Your task to perform on an android device: Check out the new nike air max 2020. Image 0: 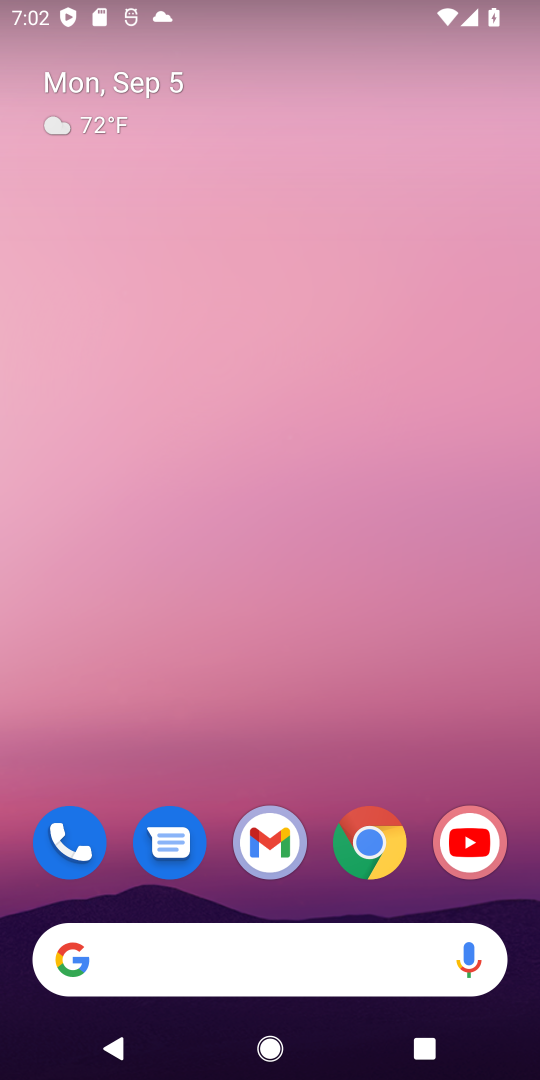
Step 0: click (372, 847)
Your task to perform on an android device: Check out the new nike air max 2020. Image 1: 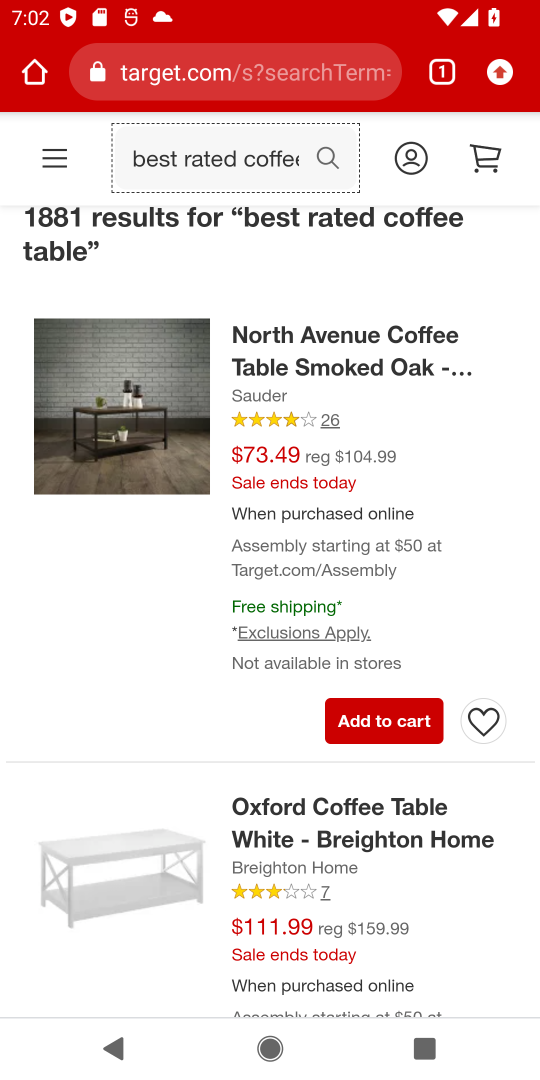
Step 1: click (304, 81)
Your task to perform on an android device: Check out the new nike air max 2020. Image 2: 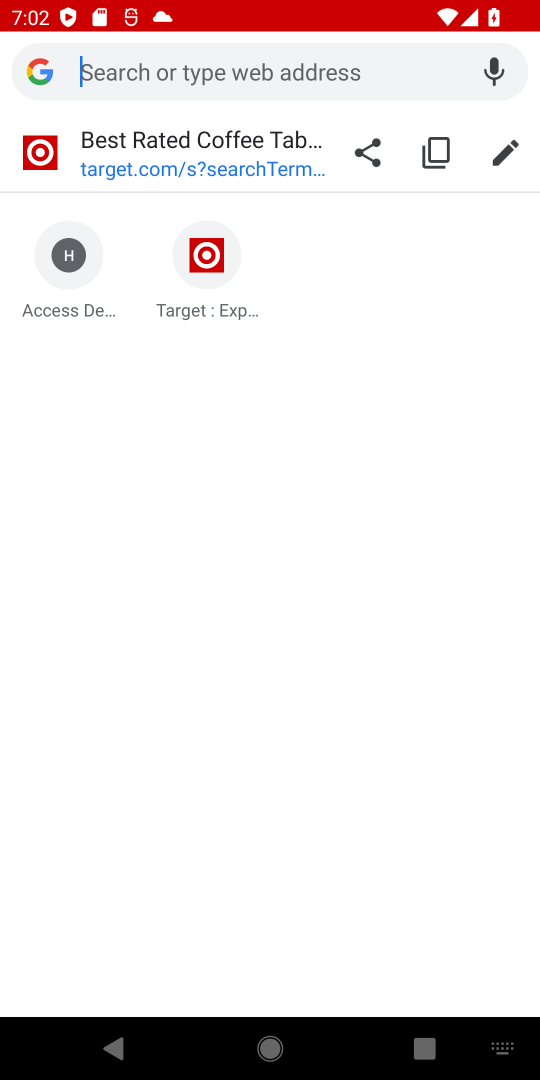
Step 2: type ""
Your task to perform on an android device: Check out the new nike air max 2020. Image 3: 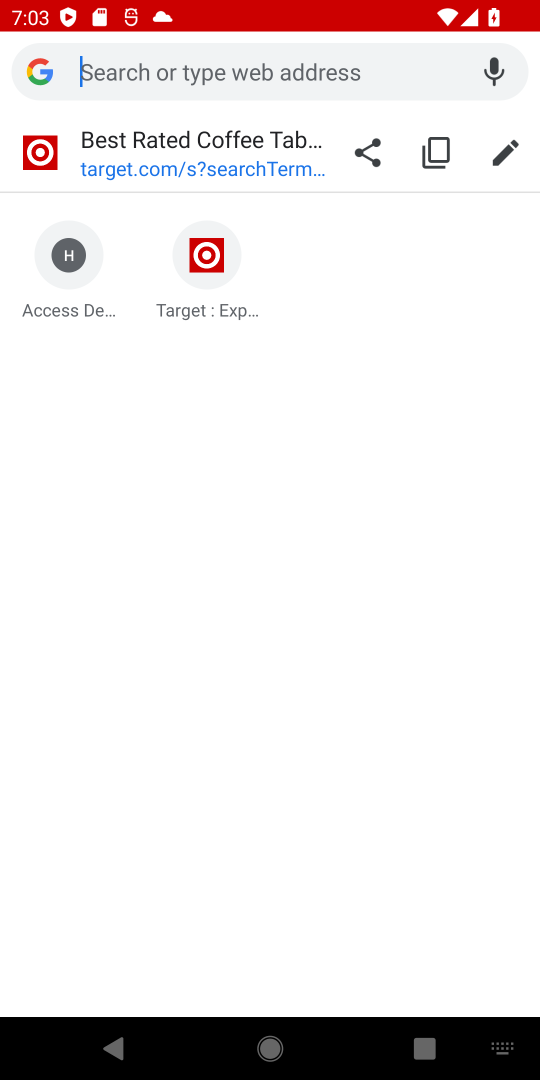
Step 3: type "new nike air max 2020"
Your task to perform on an android device: Check out the new nike air max 2020. Image 4: 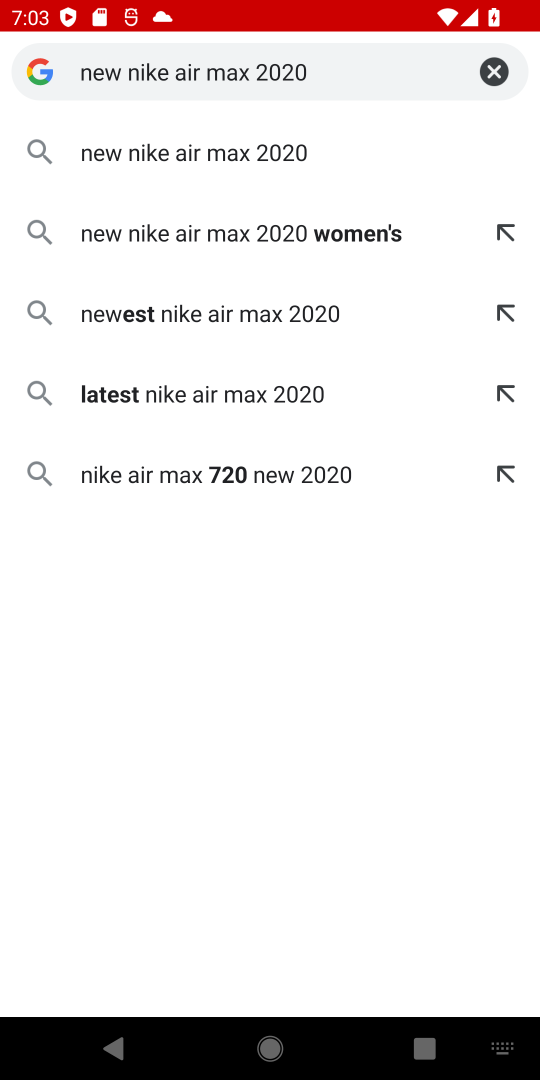
Step 4: click (189, 160)
Your task to perform on an android device: Check out the new nike air max 2020. Image 5: 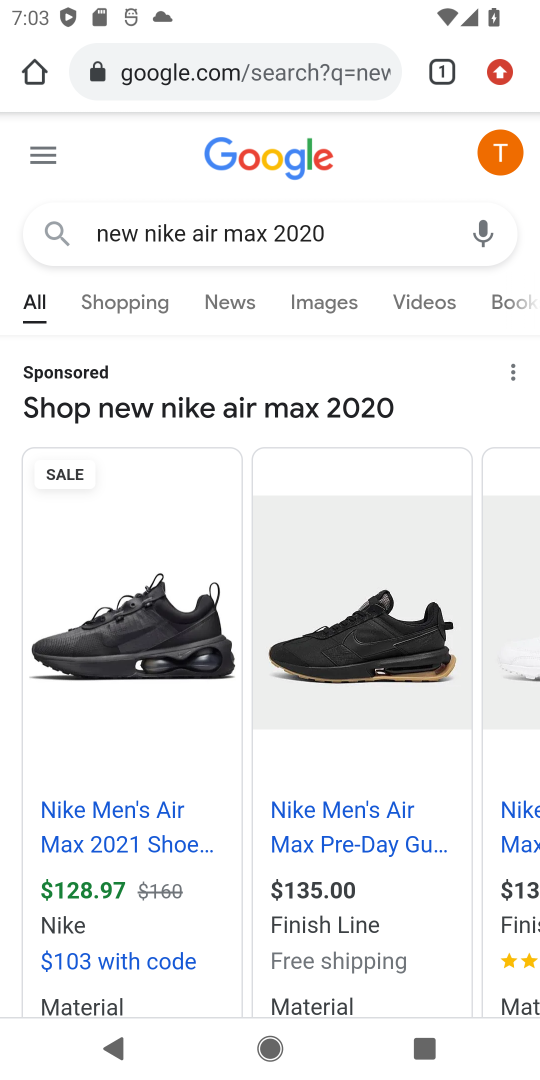
Step 5: task complete